Your task to perform on an android device: Check the news Image 0: 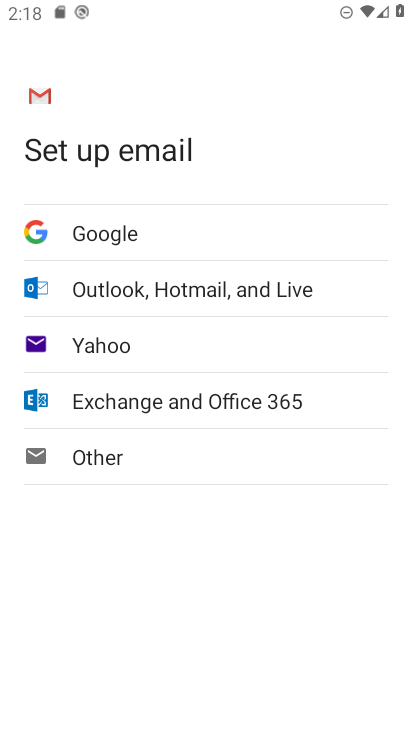
Step 0: press home button
Your task to perform on an android device: Check the news Image 1: 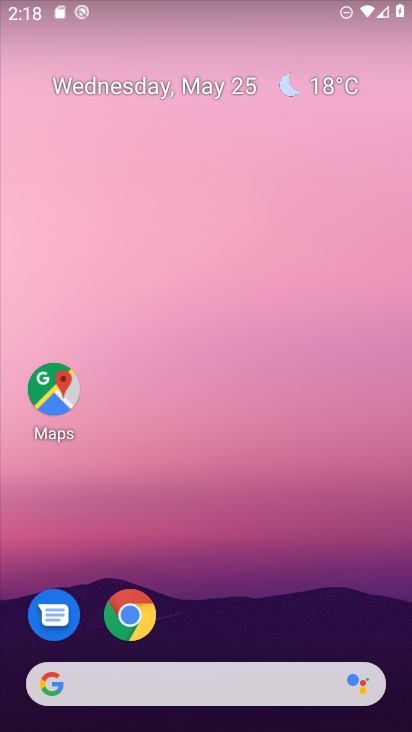
Step 1: click (263, 684)
Your task to perform on an android device: Check the news Image 2: 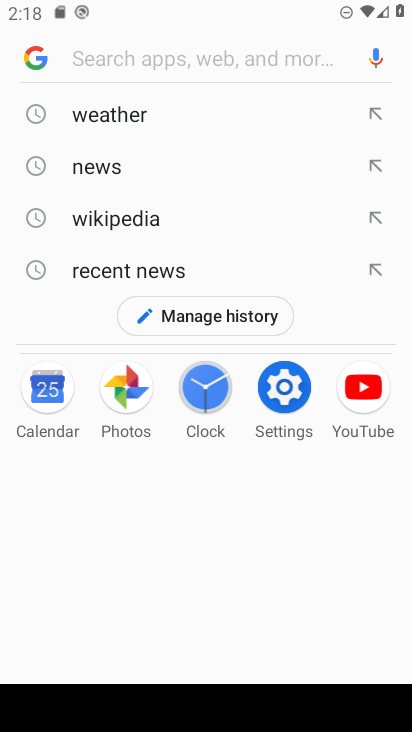
Step 2: click (80, 169)
Your task to perform on an android device: Check the news Image 3: 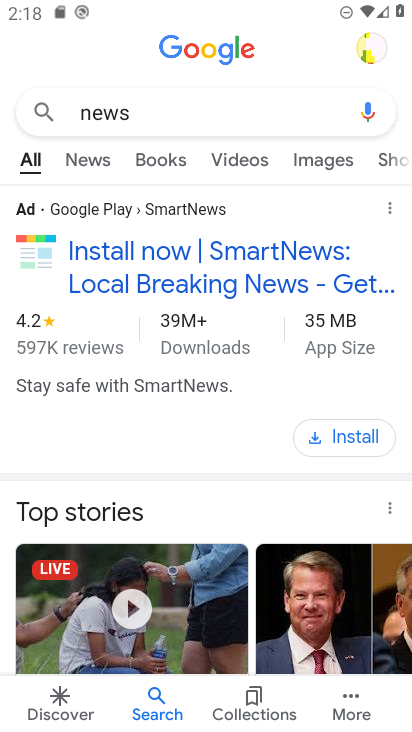
Step 3: click (95, 153)
Your task to perform on an android device: Check the news Image 4: 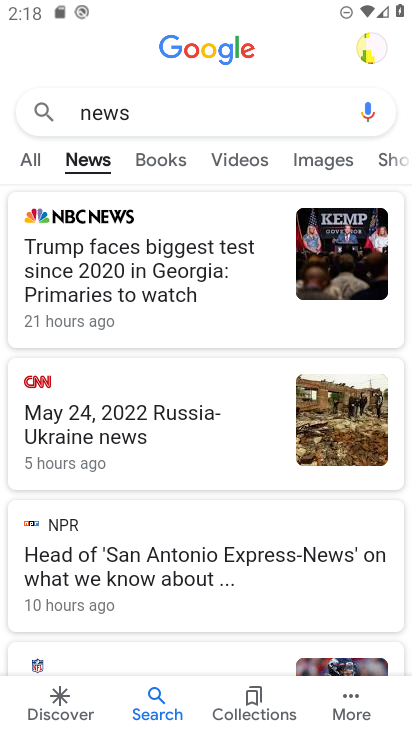
Step 4: task complete